Your task to perform on an android device: install app "Lyft - Rideshare, Bikes, Scooters & Transit" Image 0: 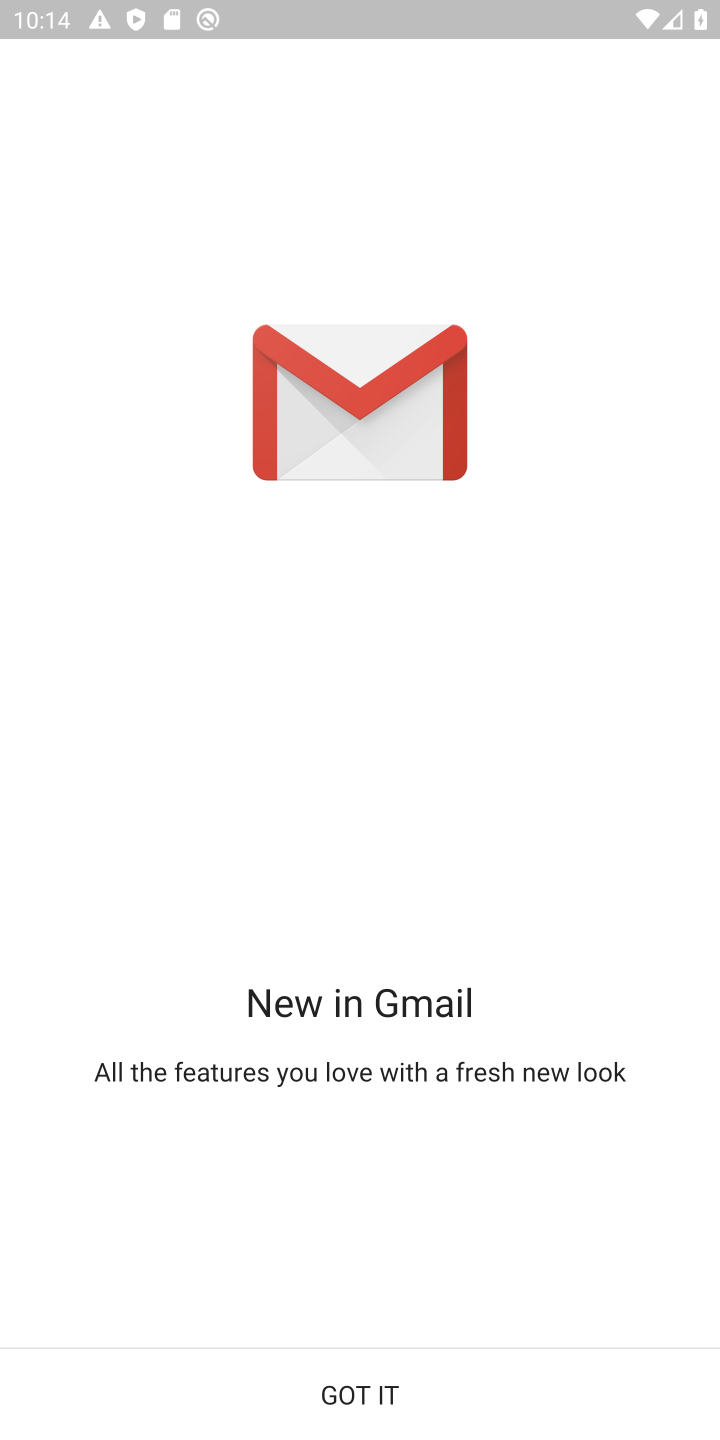
Step 0: press home button
Your task to perform on an android device: install app "Lyft - Rideshare, Bikes, Scooters & Transit" Image 1: 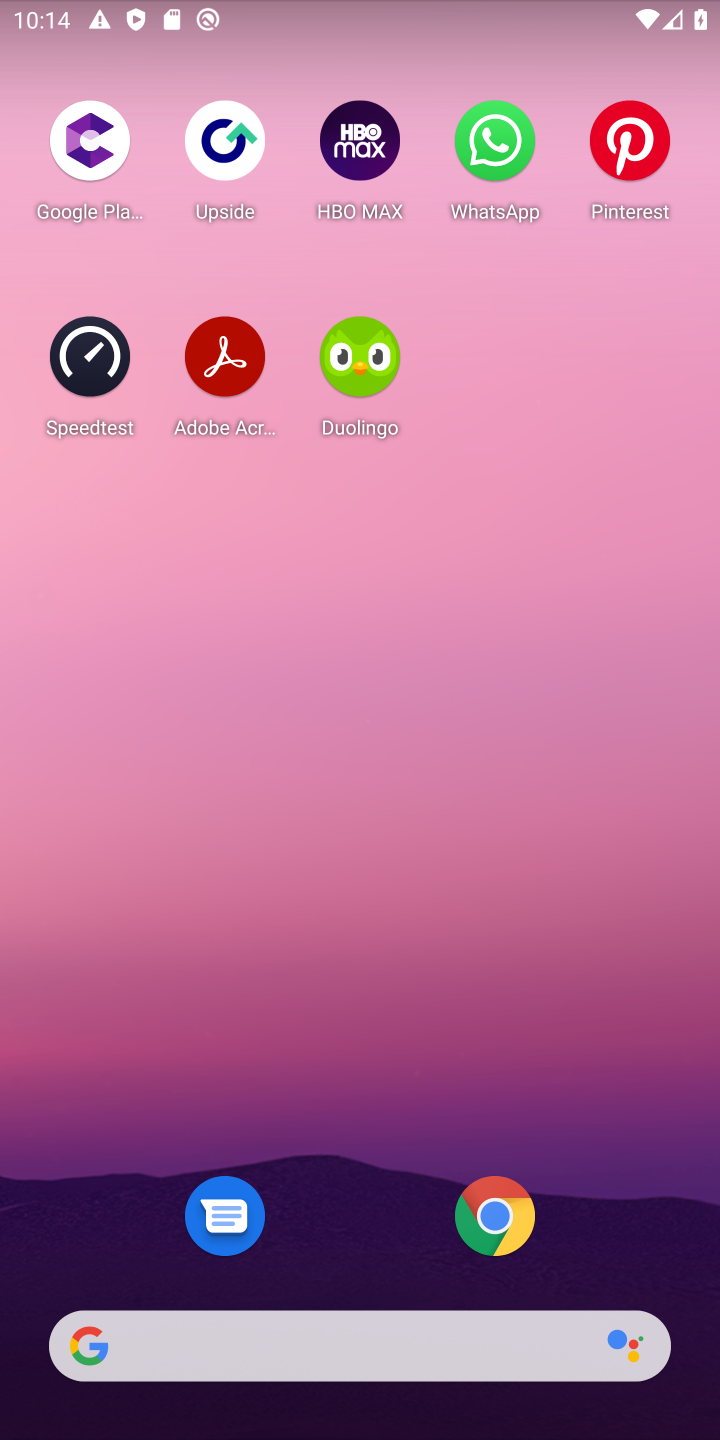
Step 1: drag from (460, 1221) to (499, 1)
Your task to perform on an android device: install app "Lyft - Rideshare, Bikes, Scooters & Transit" Image 2: 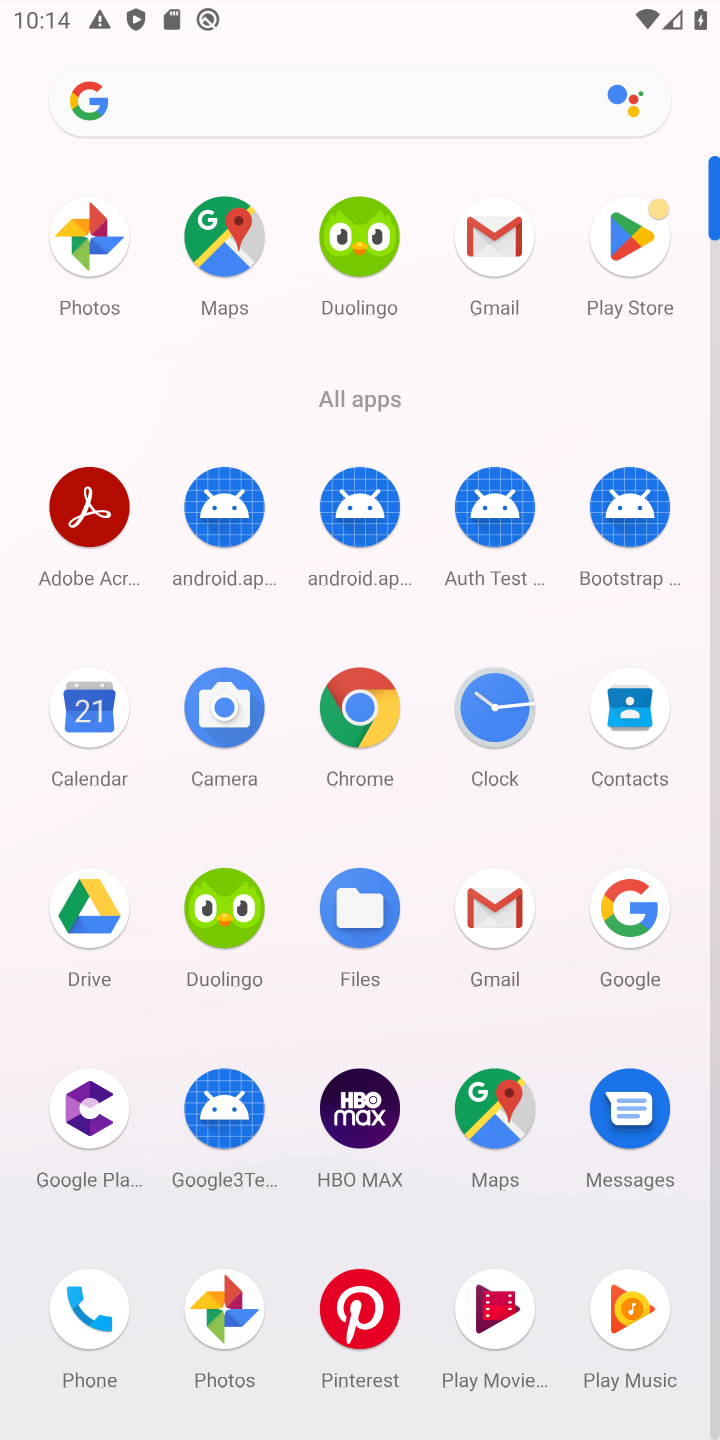
Step 2: click (623, 223)
Your task to perform on an android device: install app "Lyft - Rideshare, Bikes, Scooters & Transit" Image 3: 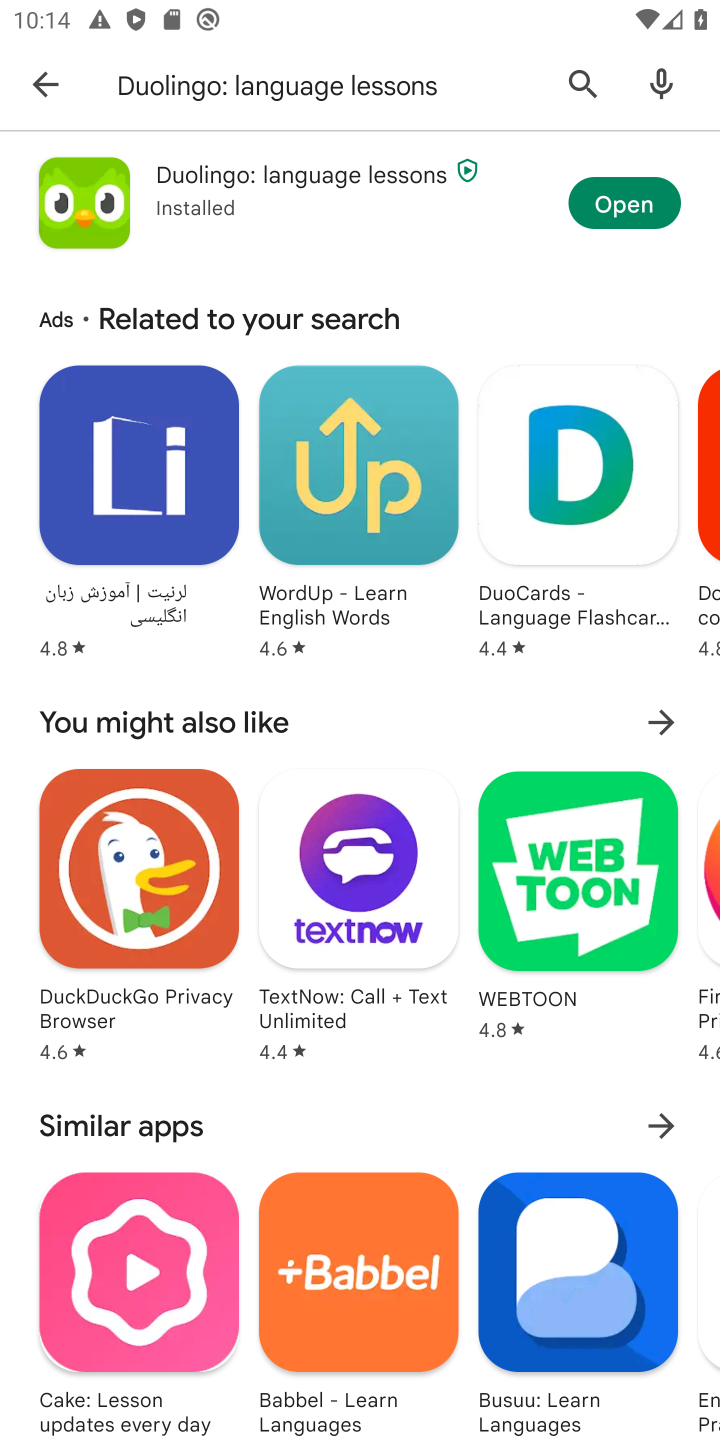
Step 3: press back button
Your task to perform on an android device: install app "Lyft - Rideshare, Bikes, Scooters & Transit" Image 4: 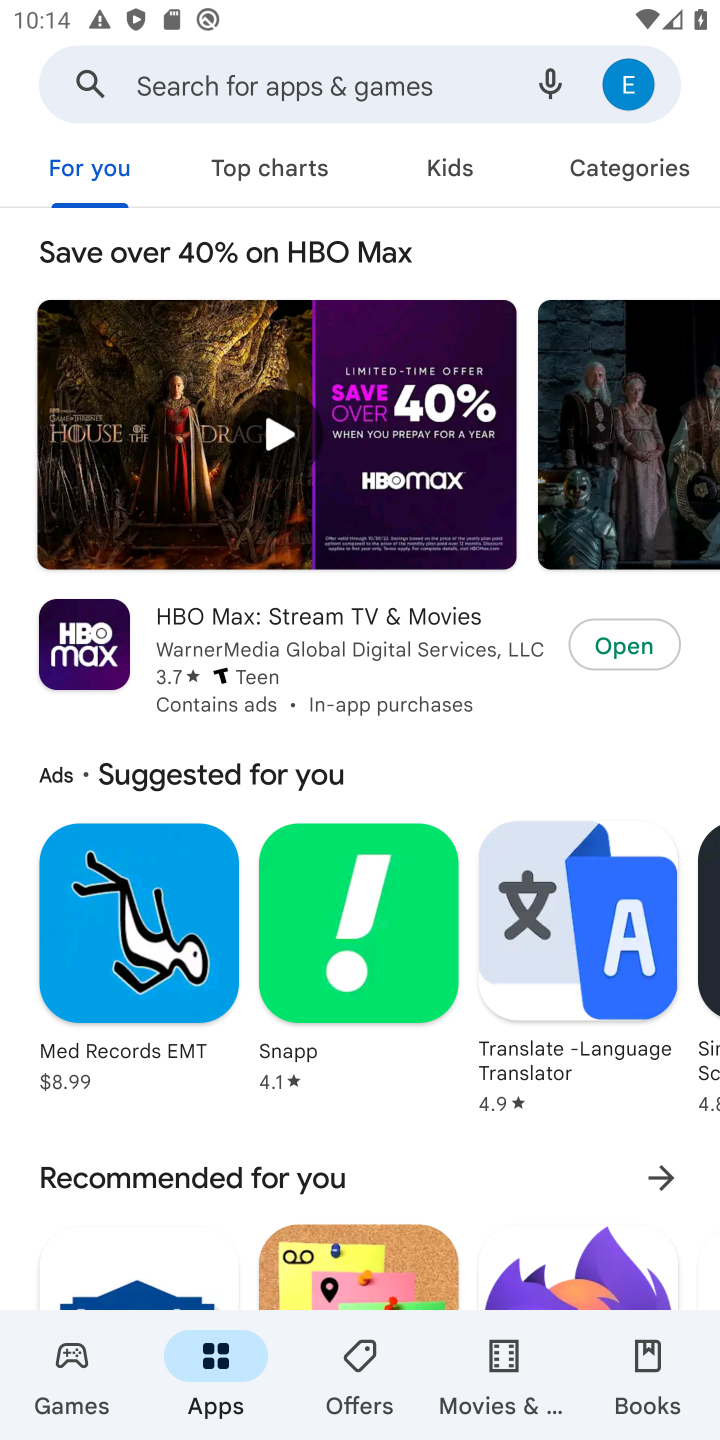
Step 4: click (273, 93)
Your task to perform on an android device: install app "Lyft - Rideshare, Bikes, Scooters & Transit" Image 5: 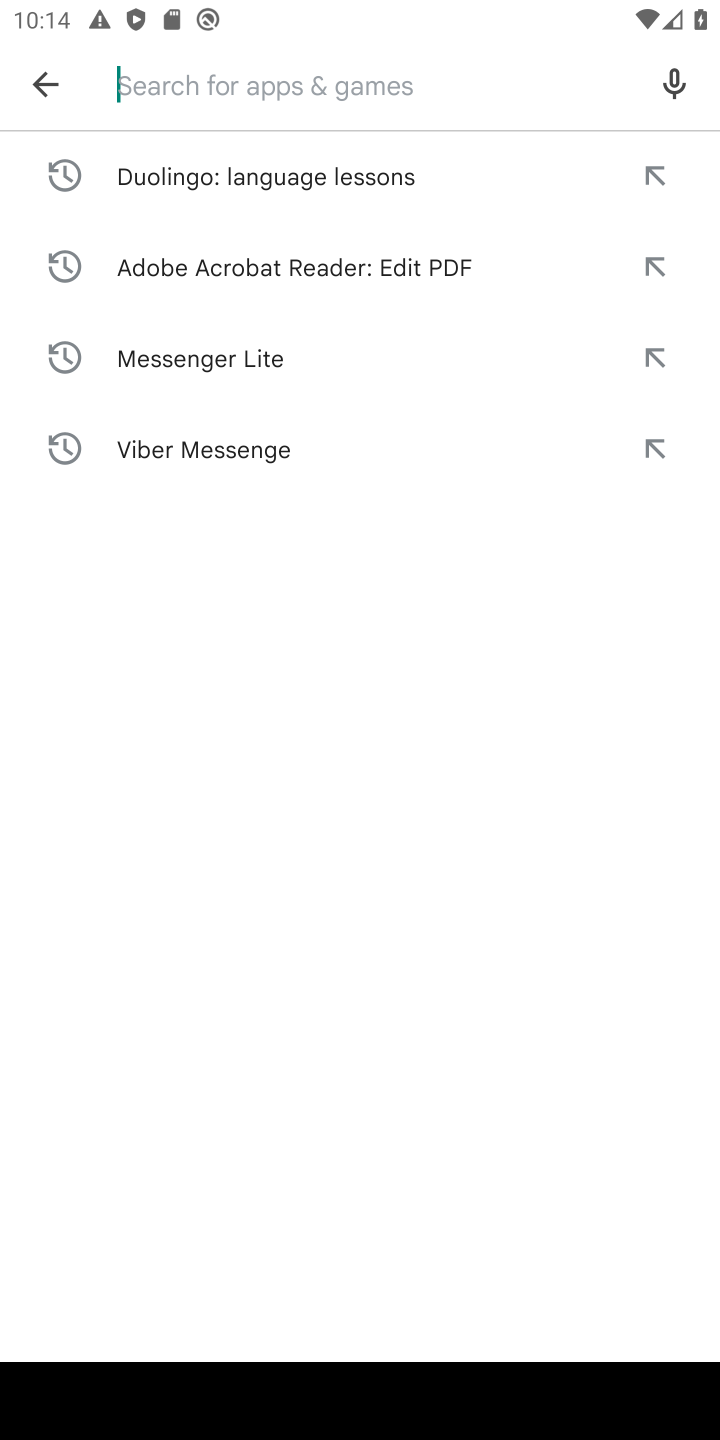
Step 5: type "Lyft - Rideshare, Bikes, Scooters & Transit"
Your task to perform on an android device: install app "Lyft - Rideshare, Bikes, Scooters & Transit" Image 6: 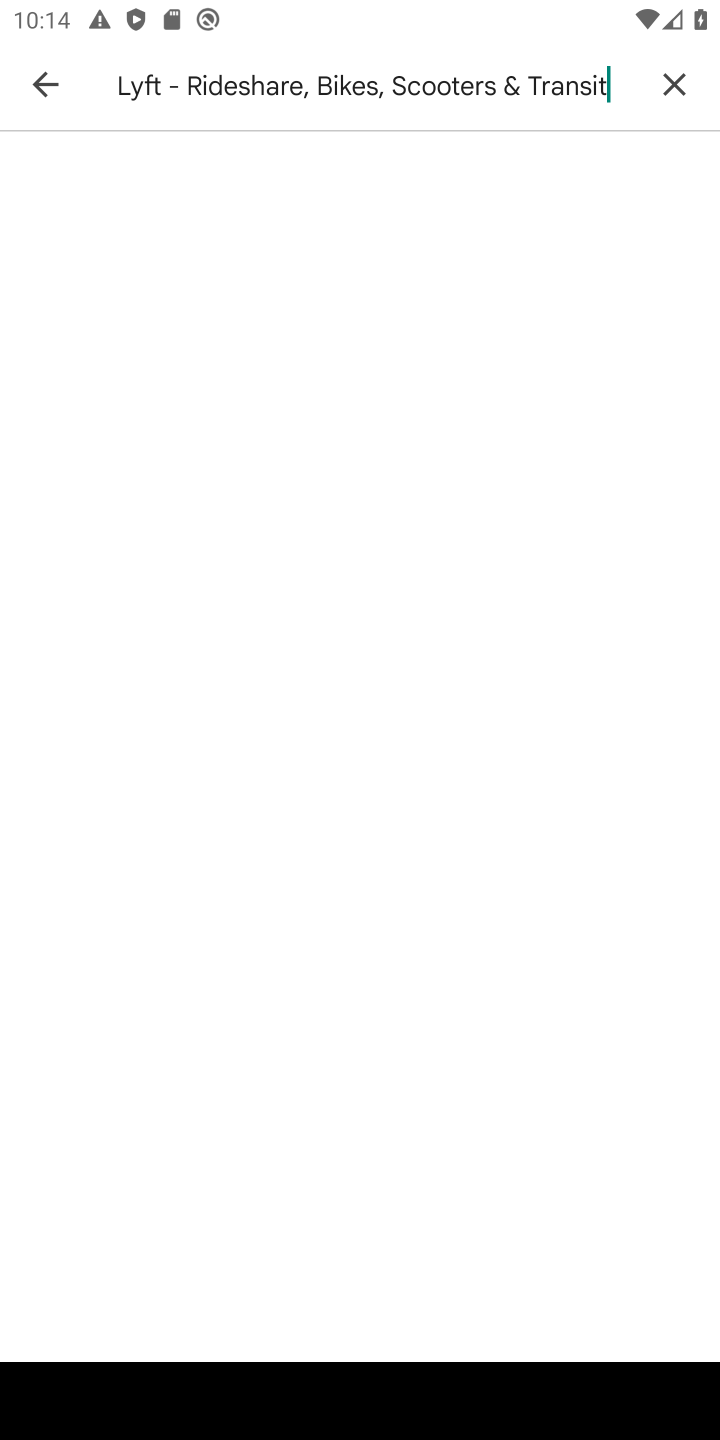
Step 6: press enter
Your task to perform on an android device: install app "Lyft - Rideshare, Bikes, Scooters & Transit" Image 7: 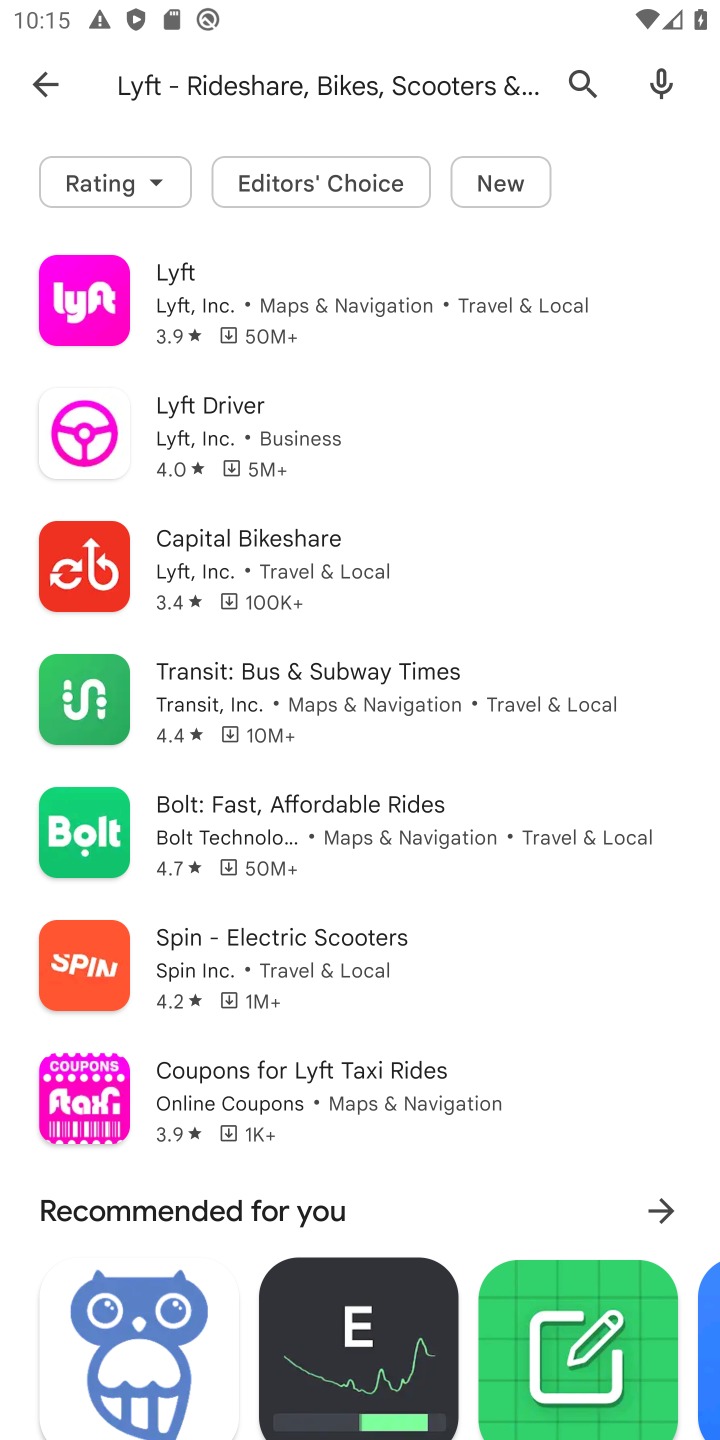
Step 7: click (263, 315)
Your task to perform on an android device: install app "Lyft - Rideshare, Bikes, Scooters & Transit" Image 8: 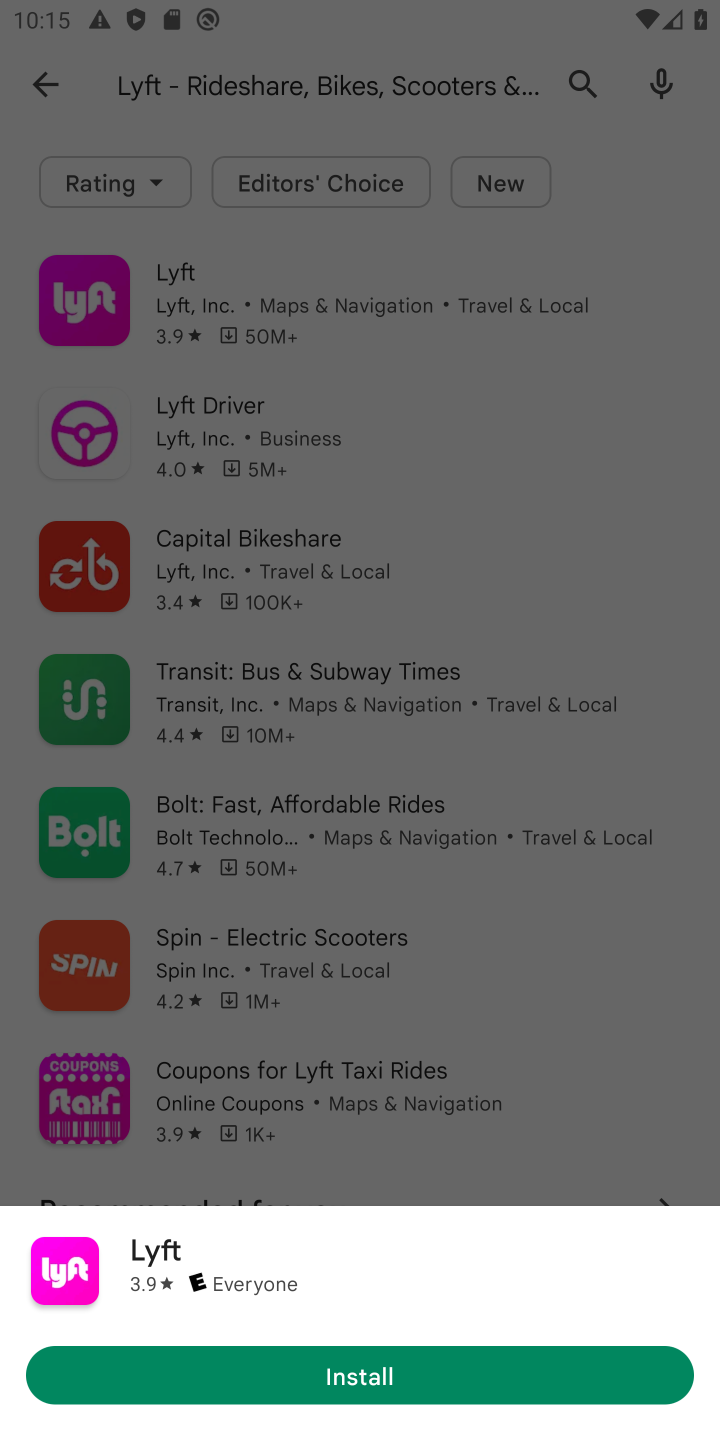
Step 8: click (428, 1374)
Your task to perform on an android device: install app "Lyft - Rideshare, Bikes, Scooters & Transit" Image 9: 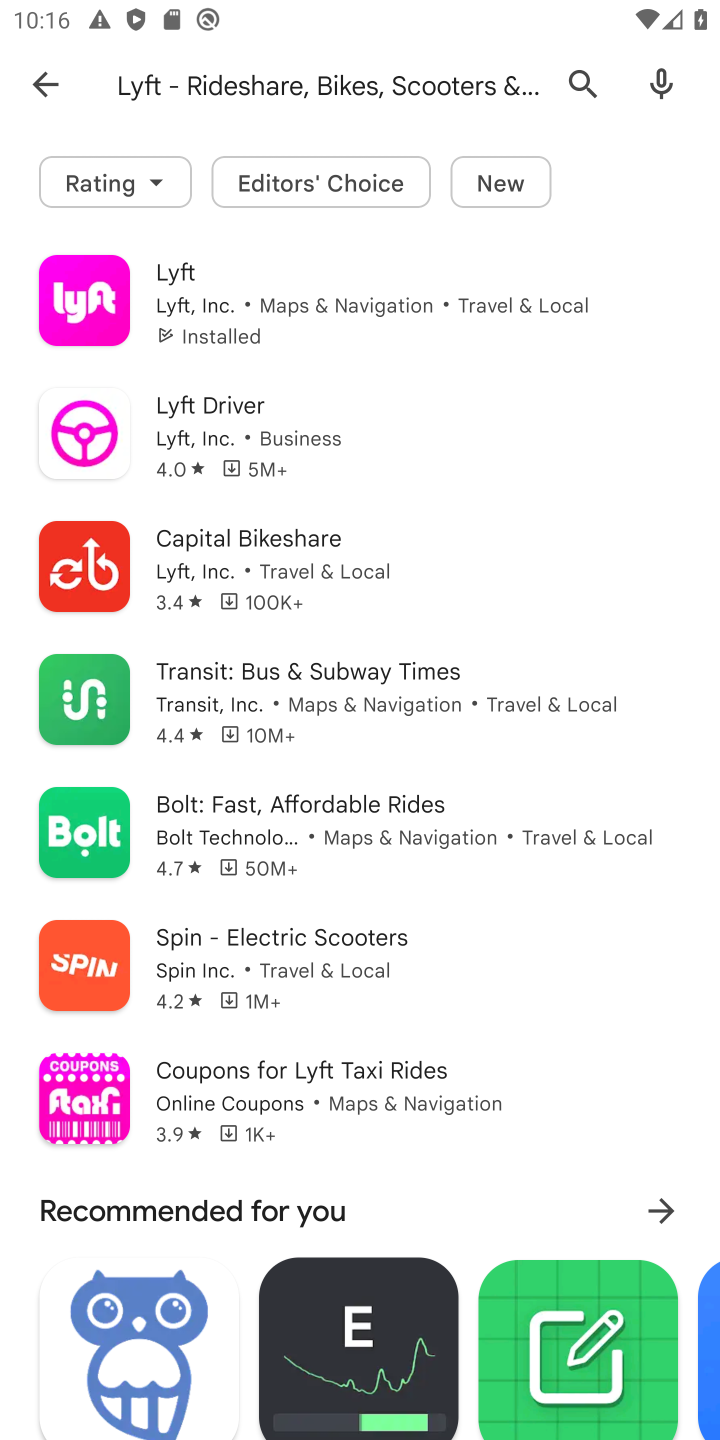
Step 9: click (169, 260)
Your task to perform on an android device: install app "Lyft - Rideshare, Bikes, Scooters & Transit" Image 10: 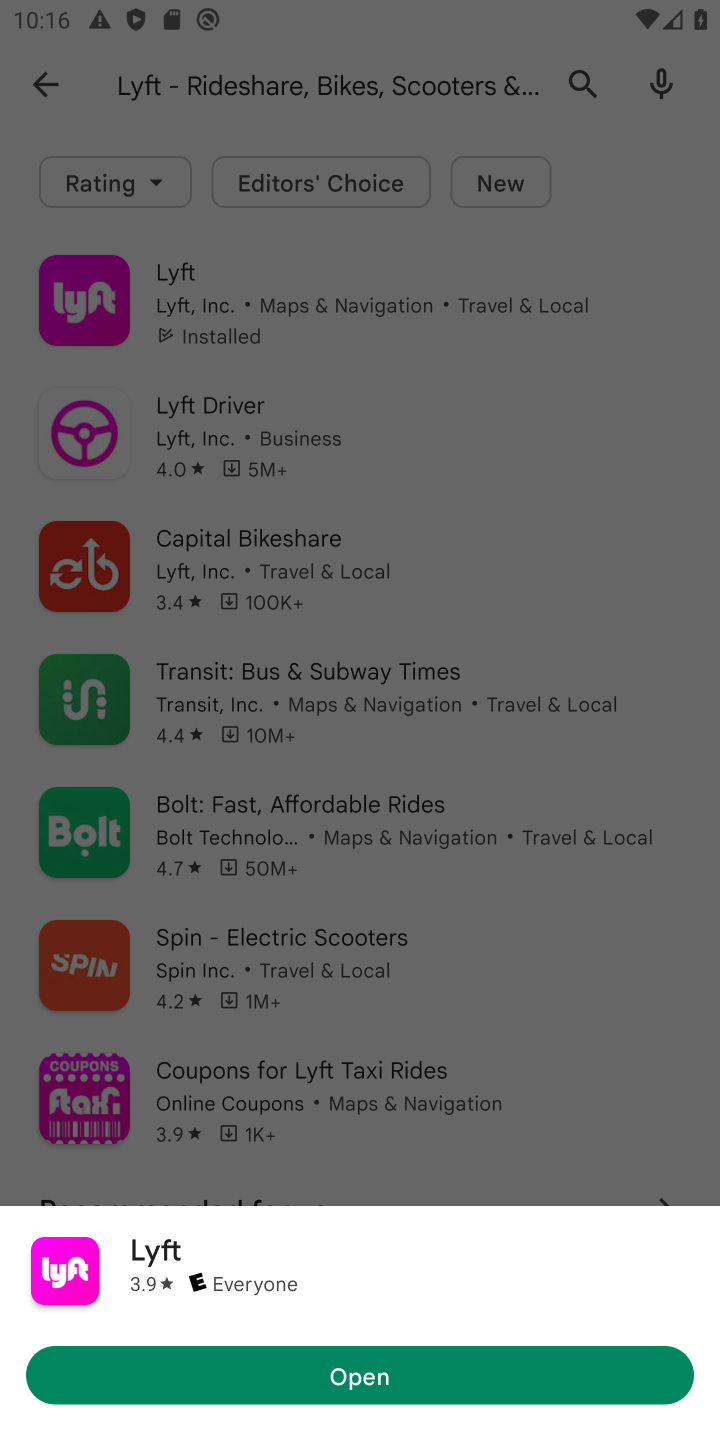
Step 10: click (436, 1375)
Your task to perform on an android device: install app "Lyft - Rideshare, Bikes, Scooters & Transit" Image 11: 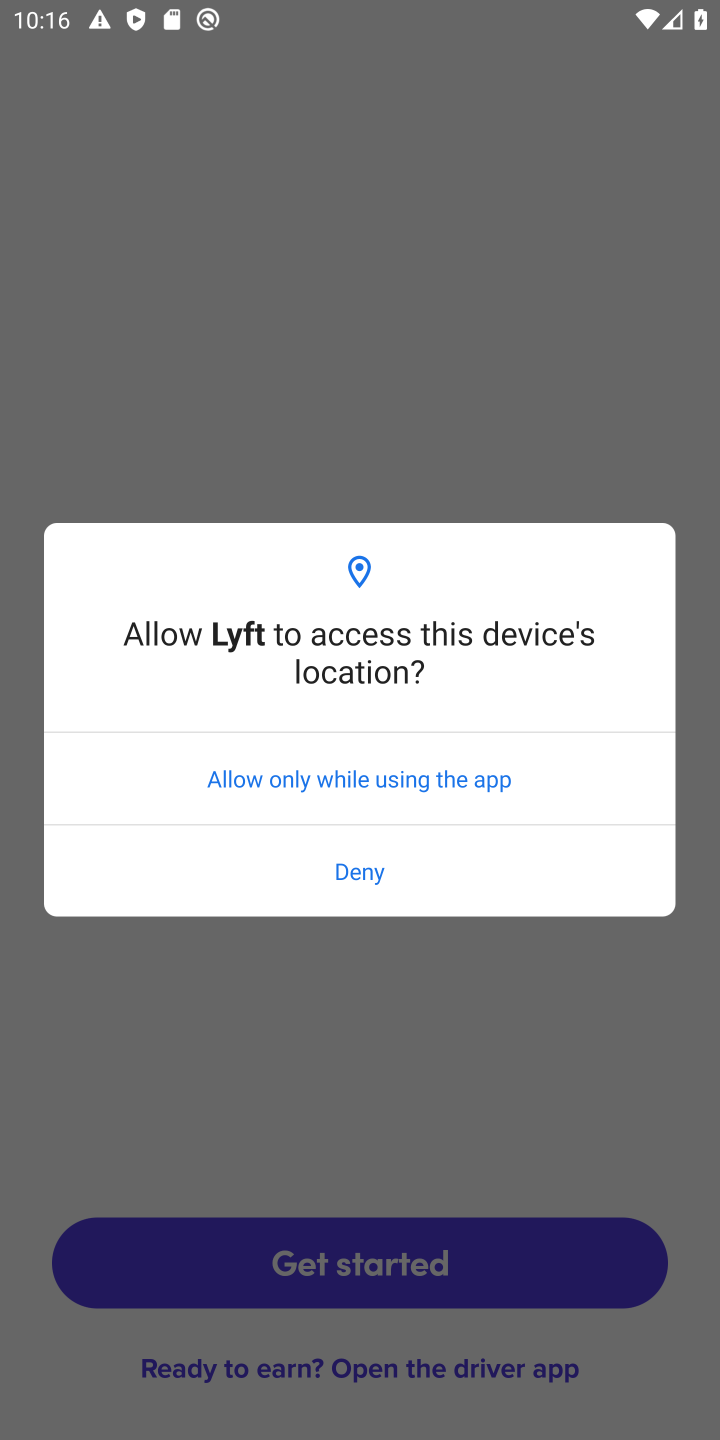
Step 11: task complete